Your task to perform on an android device: open a bookmark in the chrome app Image 0: 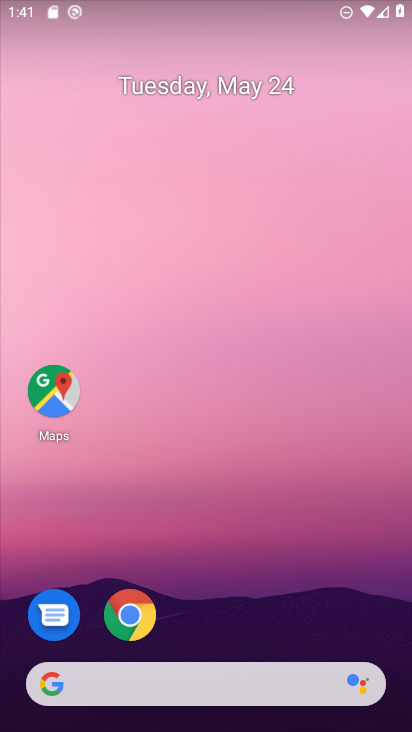
Step 0: click (129, 611)
Your task to perform on an android device: open a bookmark in the chrome app Image 1: 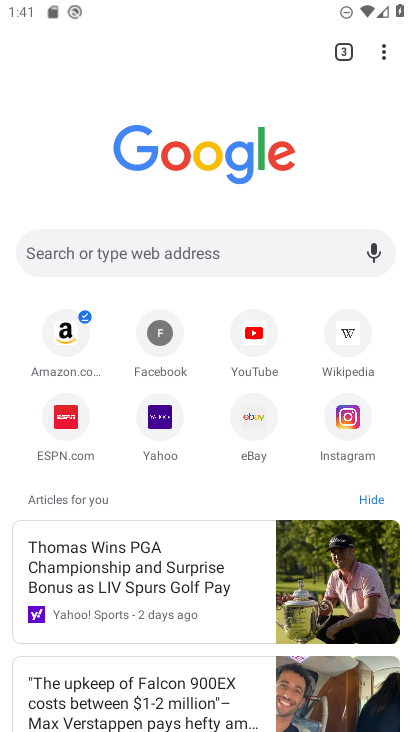
Step 1: drag from (387, 46) to (223, 194)
Your task to perform on an android device: open a bookmark in the chrome app Image 2: 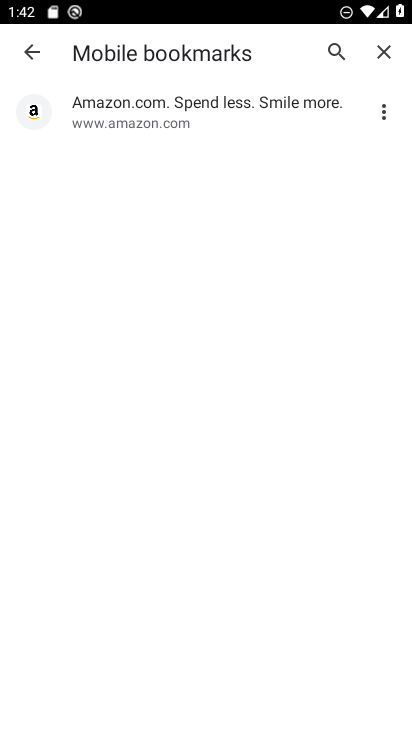
Step 2: click (162, 110)
Your task to perform on an android device: open a bookmark in the chrome app Image 3: 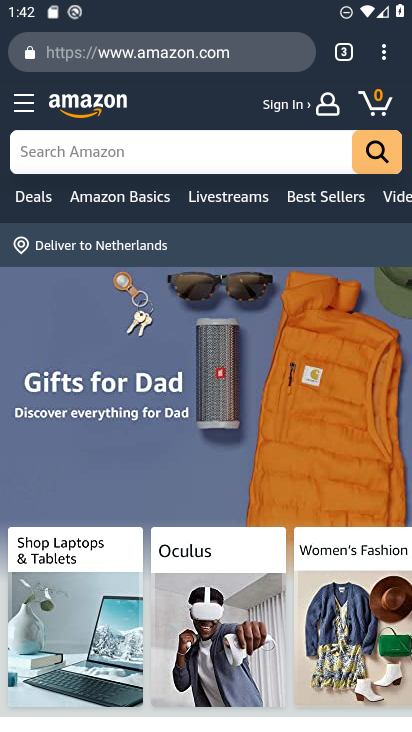
Step 3: task complete